Your task to perform on an android device: Go to Yahoo.com Image 0: 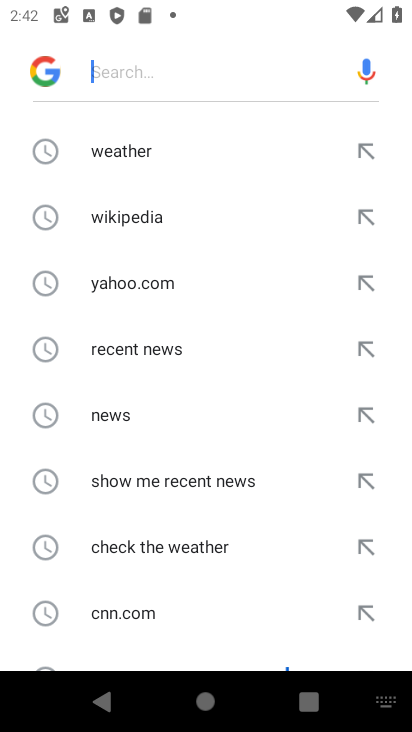
Step 0: press home button
Your task to perform on an android device: Go to Yahoo.com Image 1: 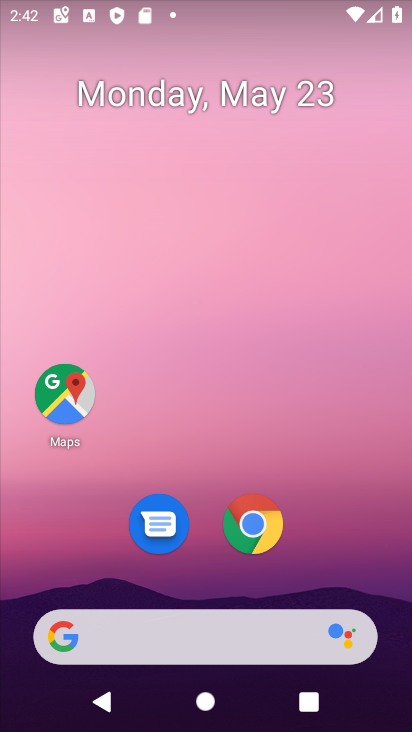
Step 1: click (252, 627)
Your task to perform on an android device: Go to Yahoo.com Image 2: 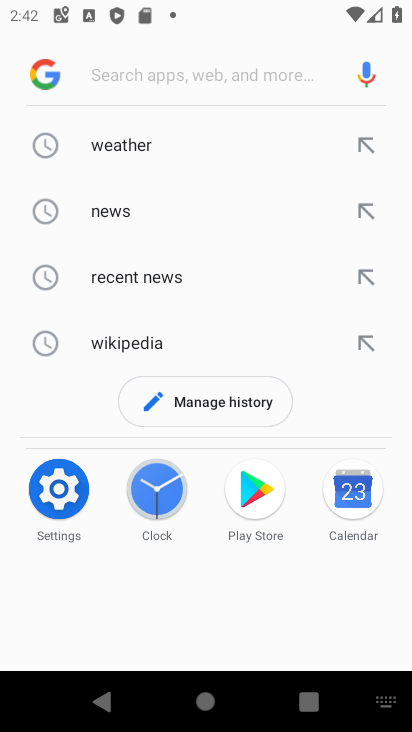
Step 2: type "yahoo.com"
Your task to perform on an android device: Go to Yahoo.com Image 3: 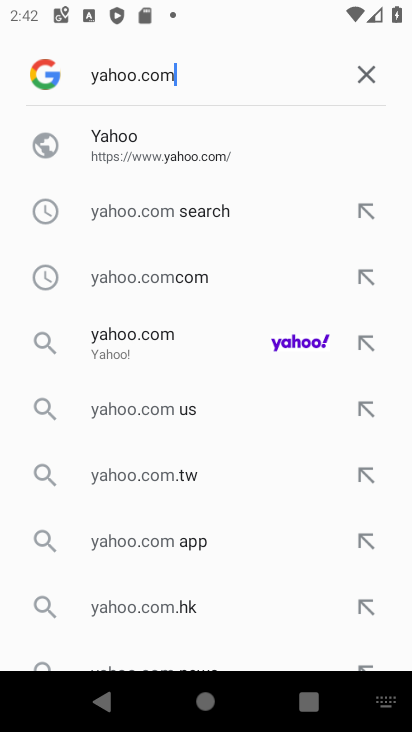
Step 3: click (138, 340)
Your task to perform on an android device: Go to Yahoo.com Image 4: 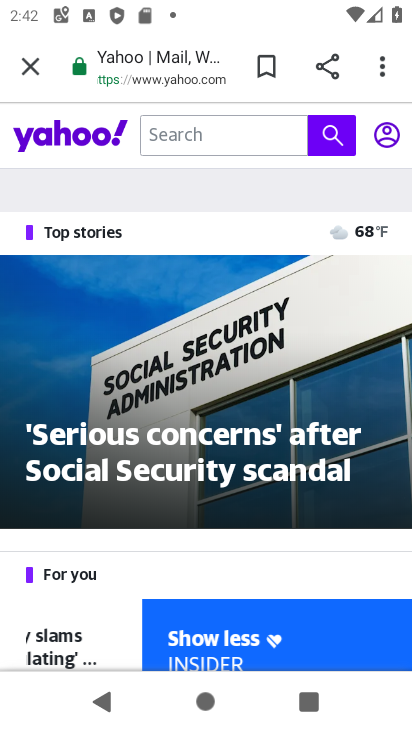
Step 4: task complete